Your task to perform on an android device: Go to settings Image 0: 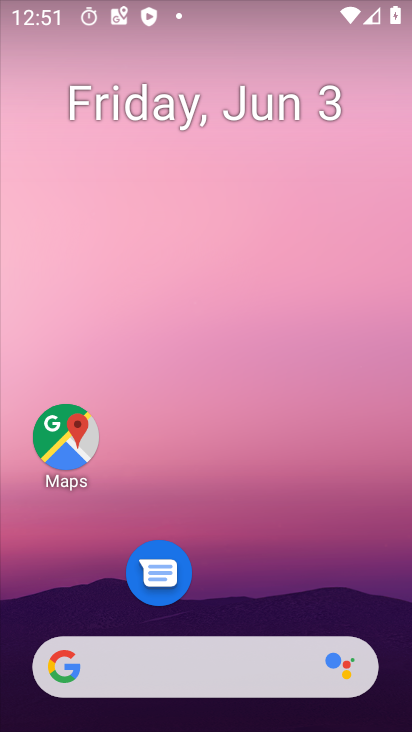
Step 0: drag from (350, 705) to (320, 173)
Your task to perform on an android device: Go to settings Image 1: 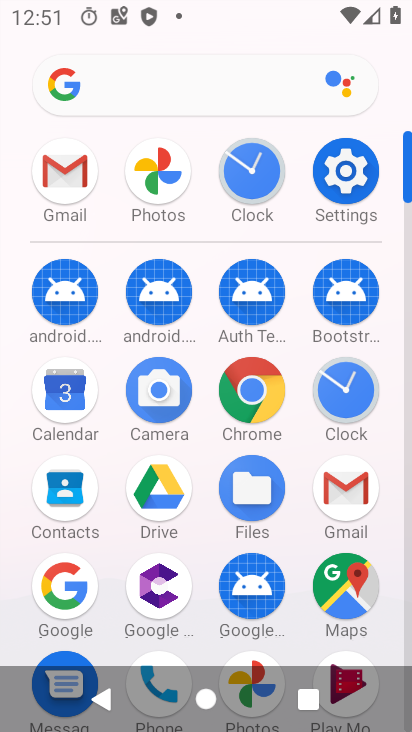
Step 1: click (350, 185)
Your task to perform on an android device: Go to settings Image 2: 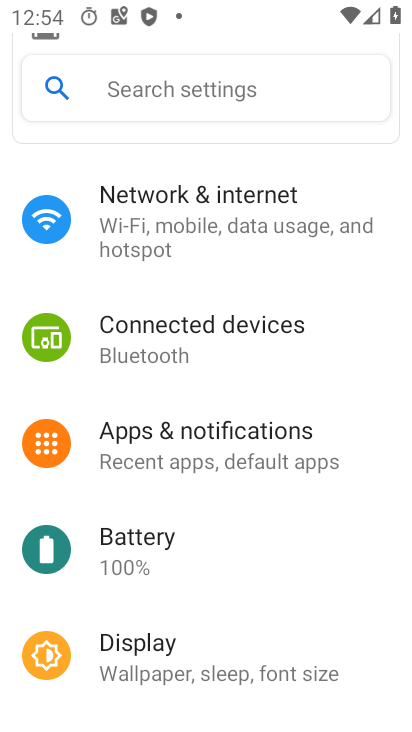
Step 2: task complete